Your task to perform on an android device: toggle translation in the chrome app Image 0: 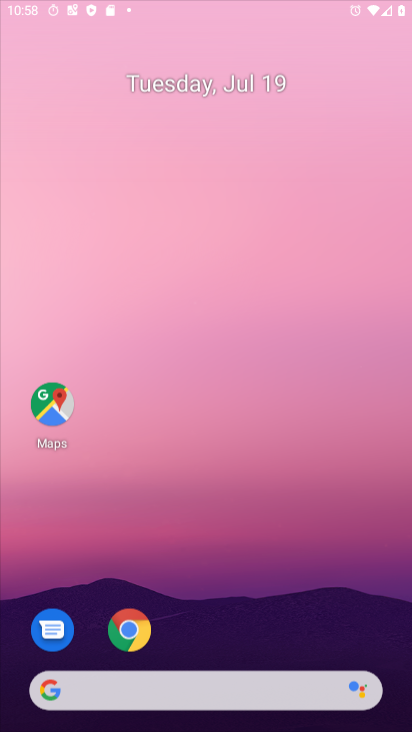
Step 0: press home button
Your task to perform on an android device: toggle translation in the chrome app Image 1: 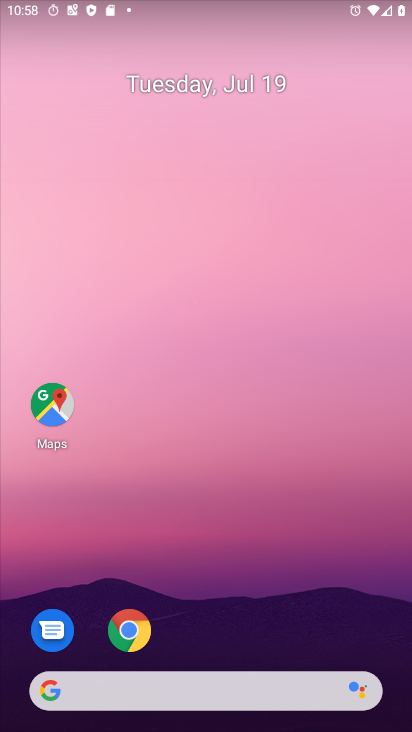
Step 1: click (134, 629)
Your task to perform on an android device: toggle translation in the chrome app Image 2: 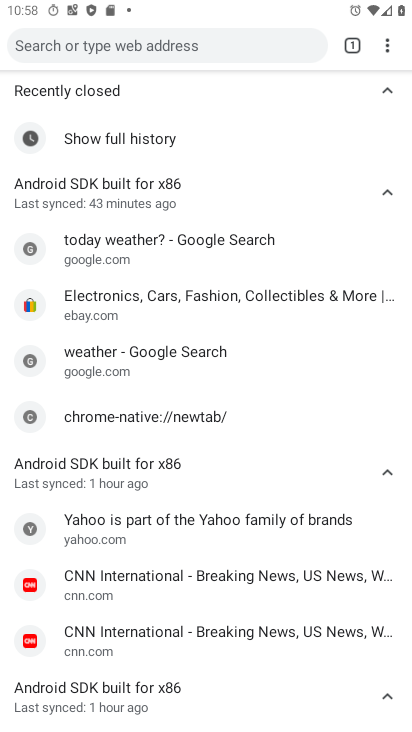
Step 2: drag from (384, 48) to (233, 378)
Your task to perform on an android device: toggle translation in the chrome app Image 3: 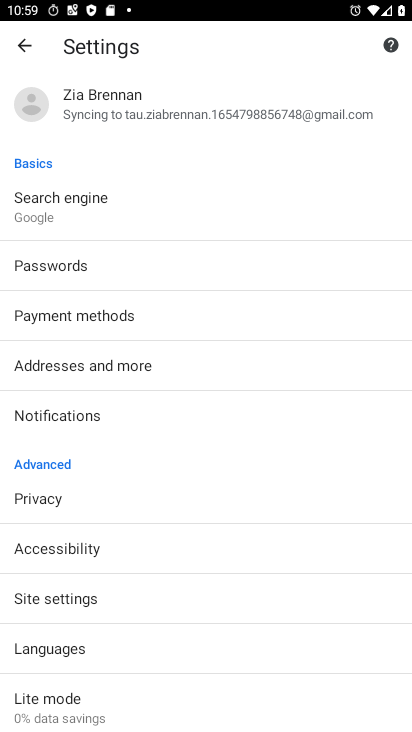
Step 3: click (56, 647)
Your task to perform on an android device: toggle translation in the chrome app Image 4: 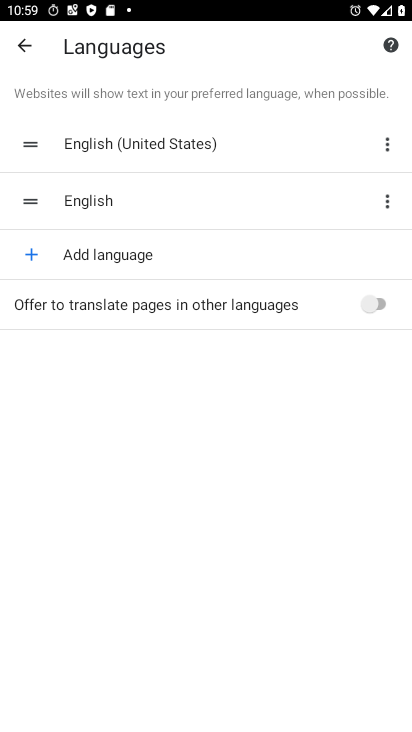
Step 4: click (377, 306)
Your task to perform on an android device: toggle translation in the chrome app Image 5: 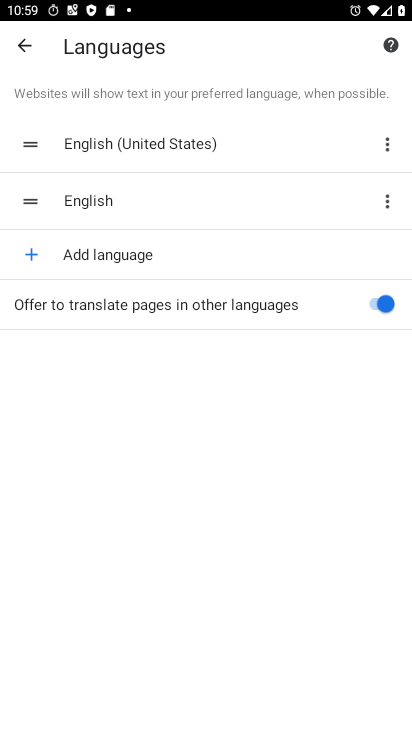
Step 5: task complete